Your task to perform on an android device: turn on notifications settings in the gmail app Image 0: 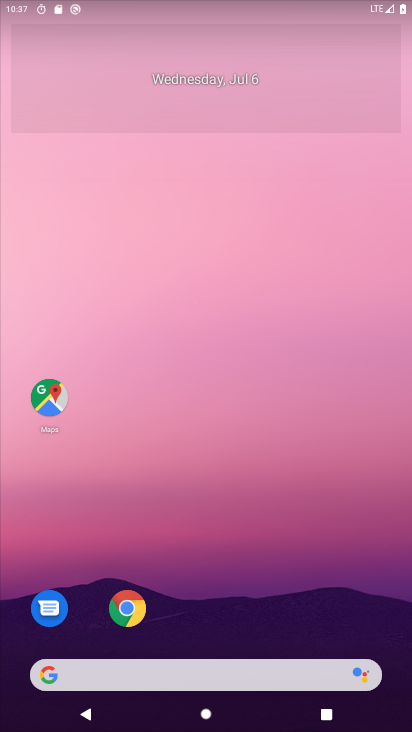
Step 0: drag from (234, 632) to (268, 27)
Your task to perform on an android device: turn on notifications settings in the gmail app Image 1: 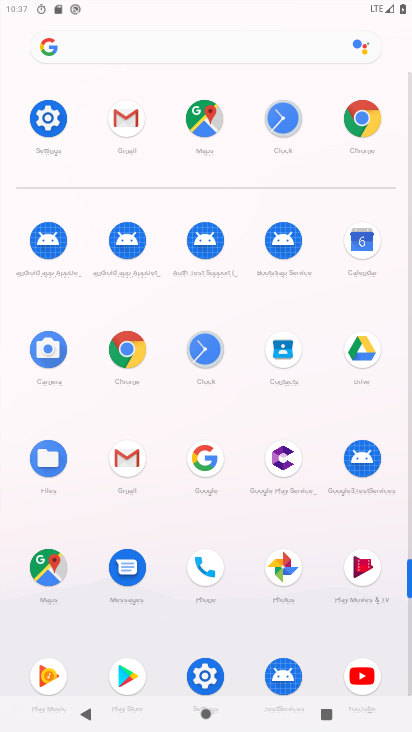
Step 1: click (131, 456)
Your task to perform on an android device: turn on notifications settings in the gmail app Image 2: 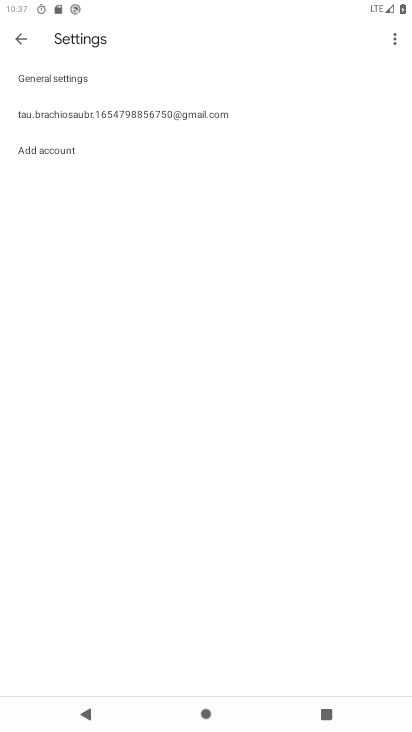
Step 2: click (81, 78)
Your task to perform on an android device: turn on notifications settings in the gmail app Image 3: 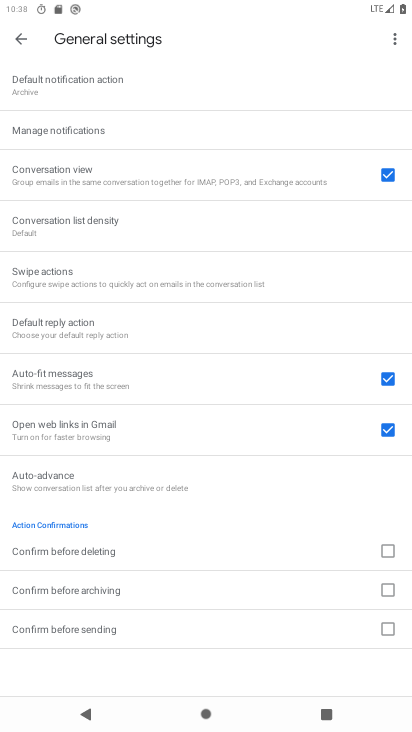
Step 3: click (120, 127)
Your task to perform on an android device: turn on notifications settings in the gmail app Image 4: 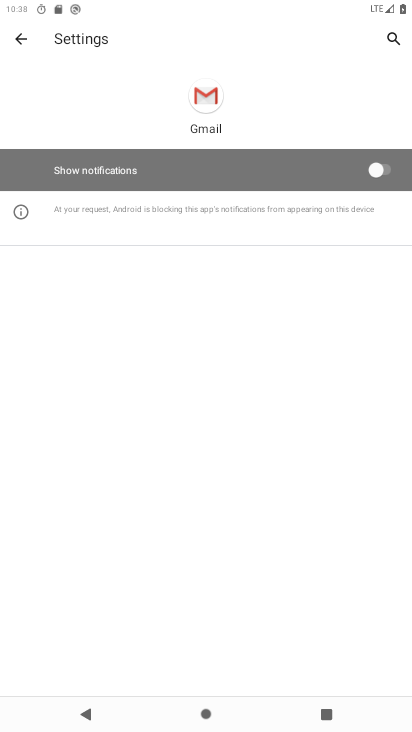
Step 4: click (374, 163)
Your task to perform on an android device: turn on notifications settings in the gmail app Image 5: 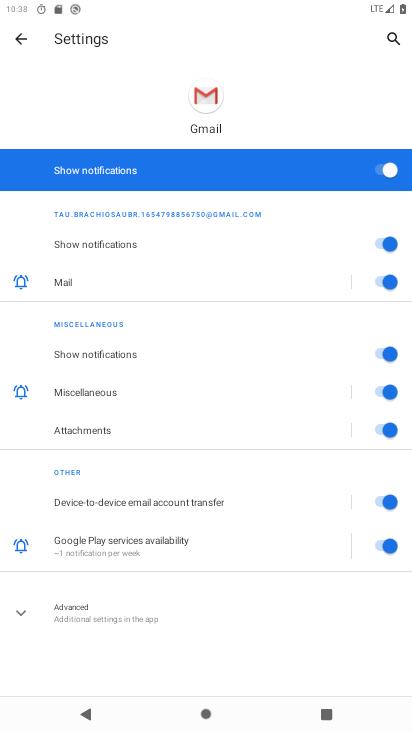
Step 5: task complete